Your task to perform on an android device: Go to privacy settings Image 0: 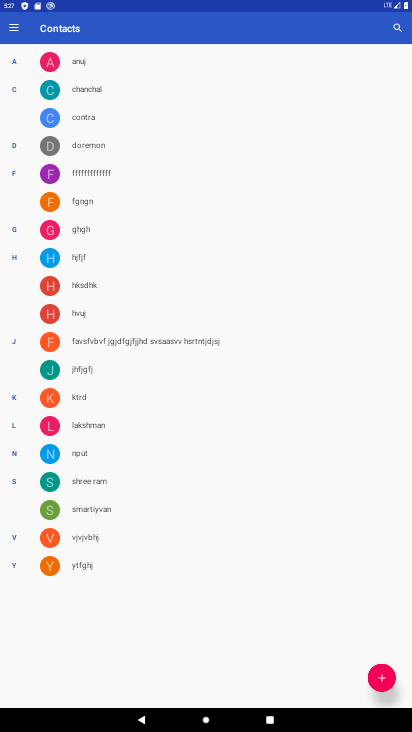
Step 0: press home button
Your task to perform on an android device: Go to privacy settings Image 1: 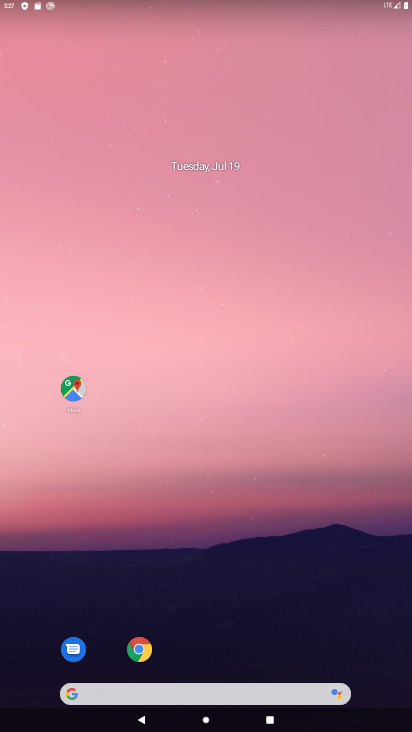
Step 1: drag from (279, 596) to (237, 100)
Your task to perform on an android device: Go to privacy settings Image 2: 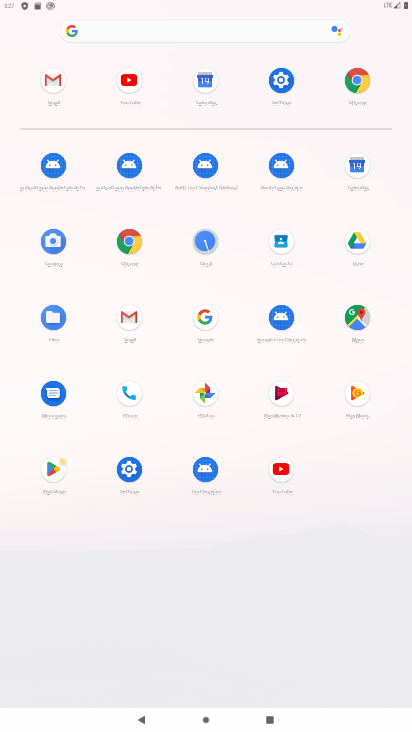
Step 2: click (292, 73)
Your task to perform on an android device: Go to privacy settings Image 3: 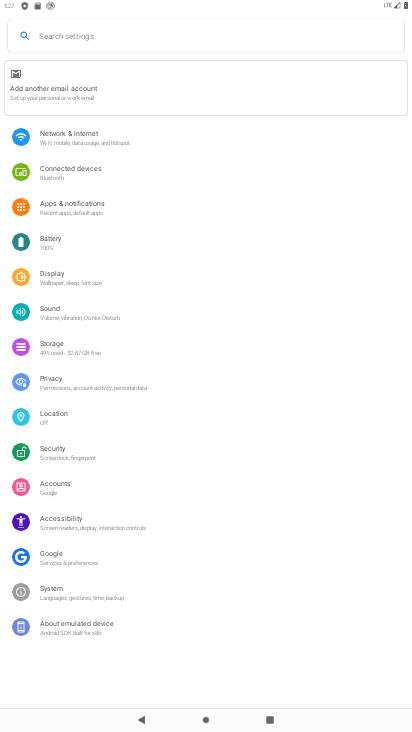
Step 3: click (60, 382)
Your task to perform on an android device: Go to privacy settings Image 4: 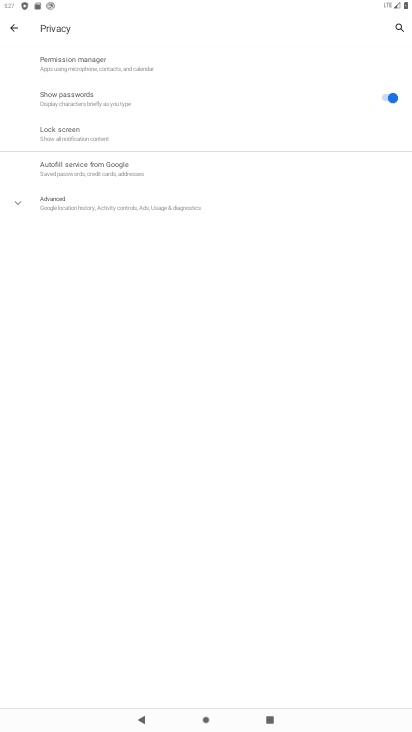
Step 4: task complete